Your task to perform on an android device: Go to CNN.com Image 0: 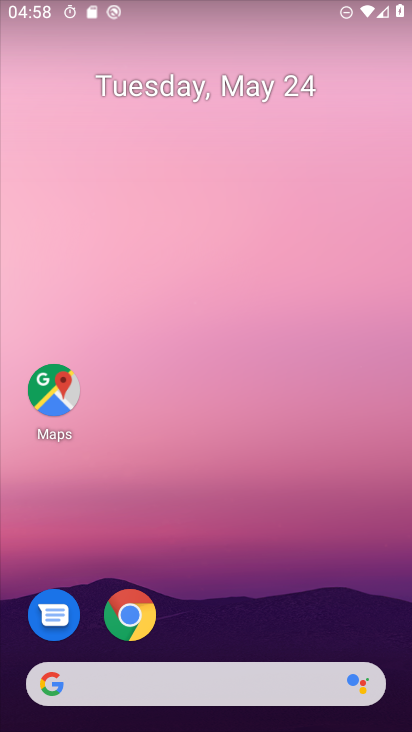
Step 0: click (118, 606)
Your task to perform on an android device: Go to CNN.com Image 1: 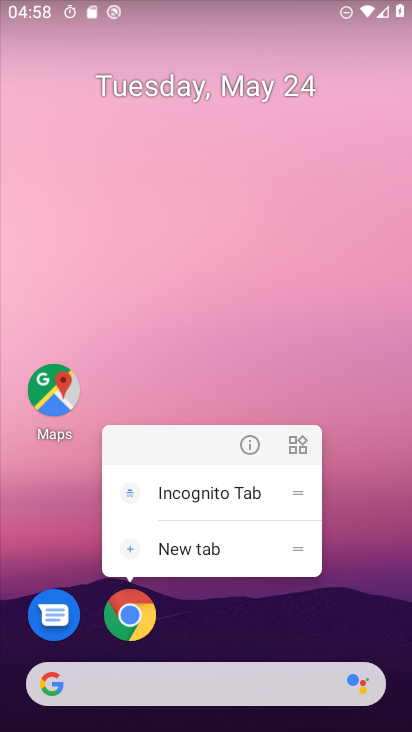
Step 1: click (134, 620)
Your task to perform on an android device: Go to CNN.com Image 2: 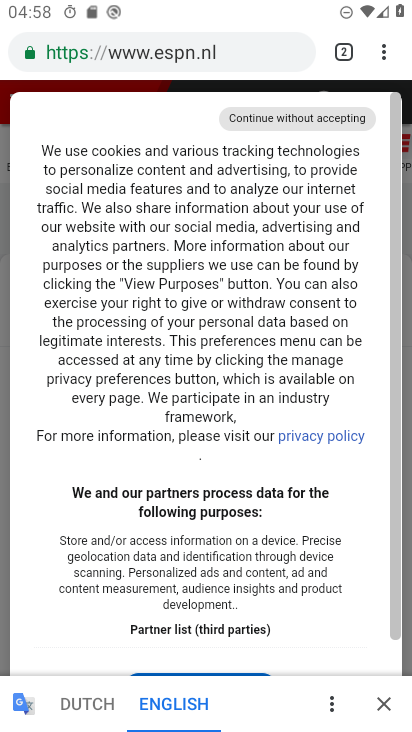
Step 2: click (338, 55)
Your task to perform on an android device: Go to CNN.com Image 3: 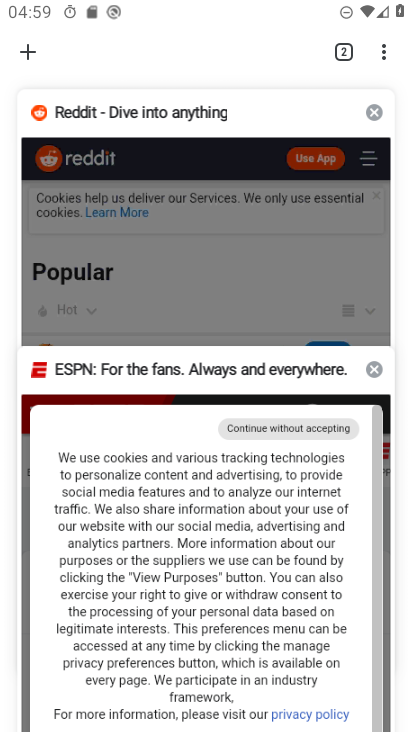
Step 3: click (16, 58)
Your task to perform on an android device: Go to CNN.com Image 4: 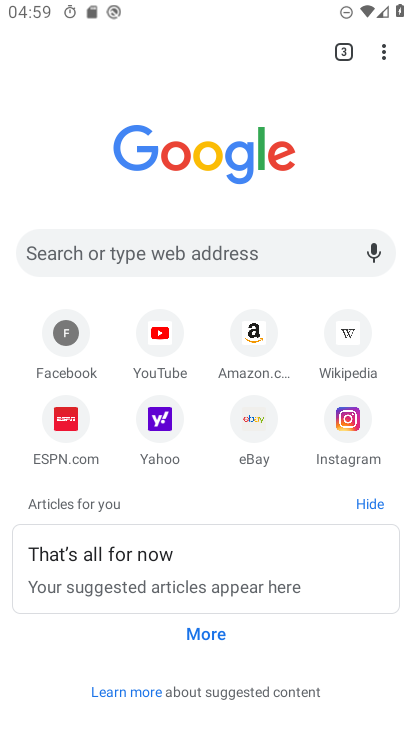
Step 4: click (189, 242)
Your task to perform on an android device: Go to CNN.com Image 5: 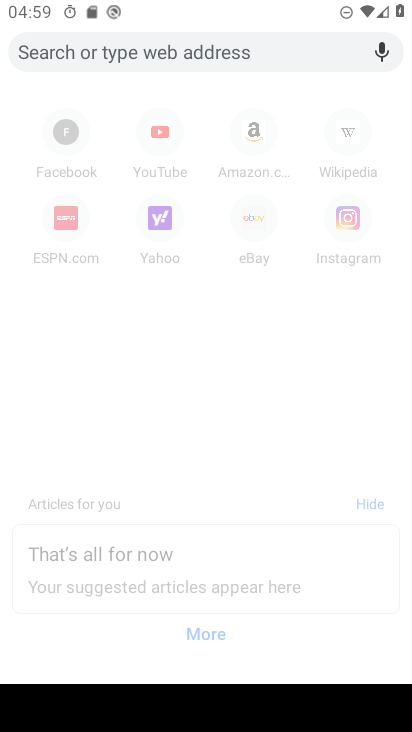
Step 5: click (217, 56)
Your task to perform on an android device: Go to CNN.com Image 6: 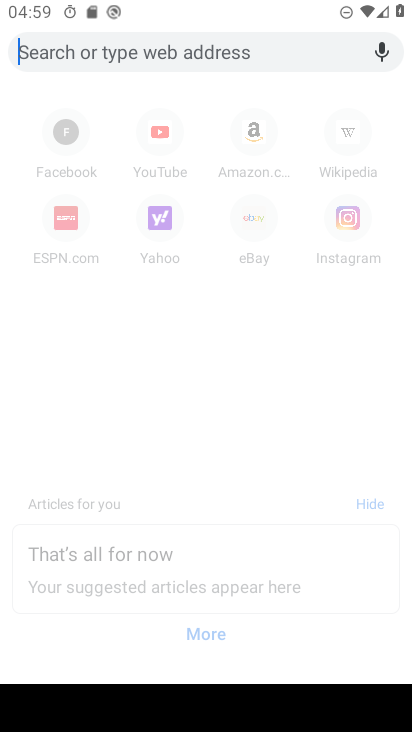
Step 6: type "cnn.com"
Your task to perform on an android device: Go to CNN.com Image 7: 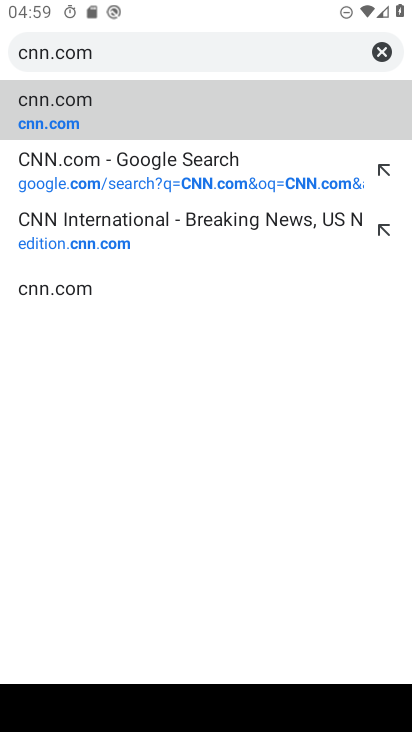
Step 7: click (215, 108)
Your task to perform on an android device: Go to CNN.com Image 8: 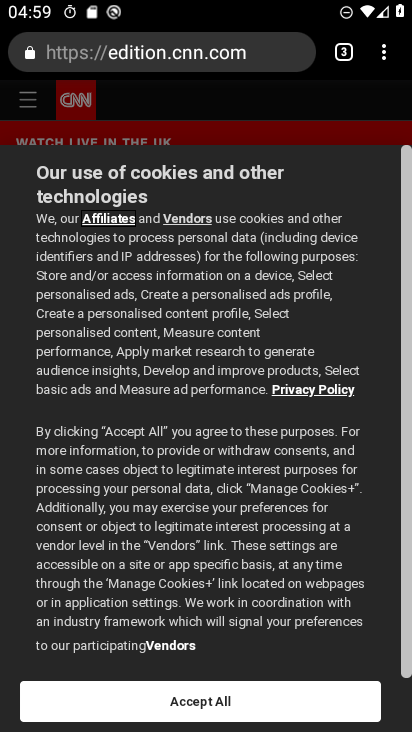
Step 8: task complete